Your task to perform on an android device: Open Google Chrome Image 0: 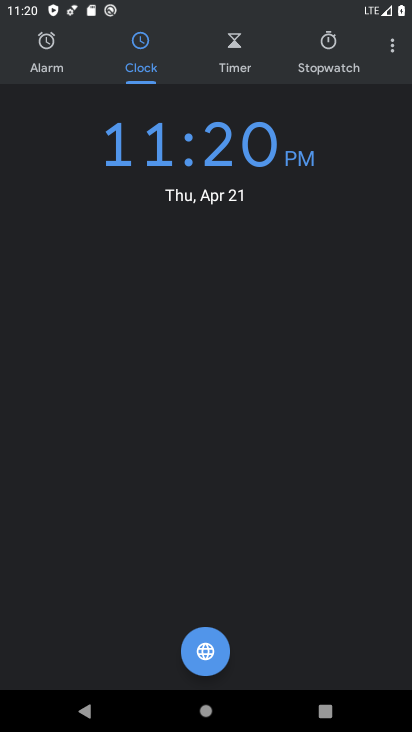
Step 0: press home button
Your task to perform on an android device: Open Google Chrome Image 1: 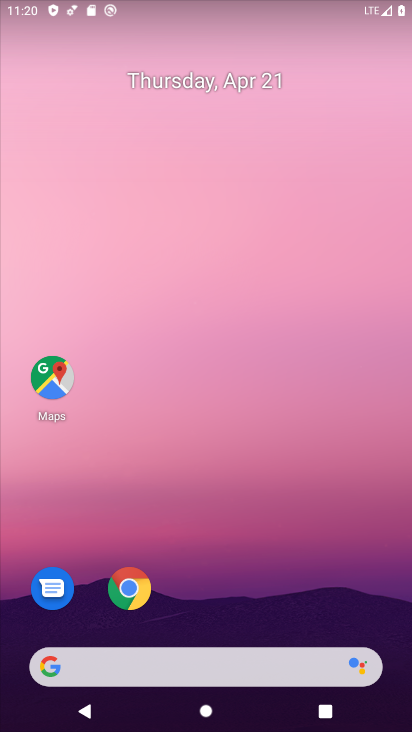
Step 1: drag from (291, 650) to (179, 163)
Your task to perform on an android device: Open Google Chrome Image 2: 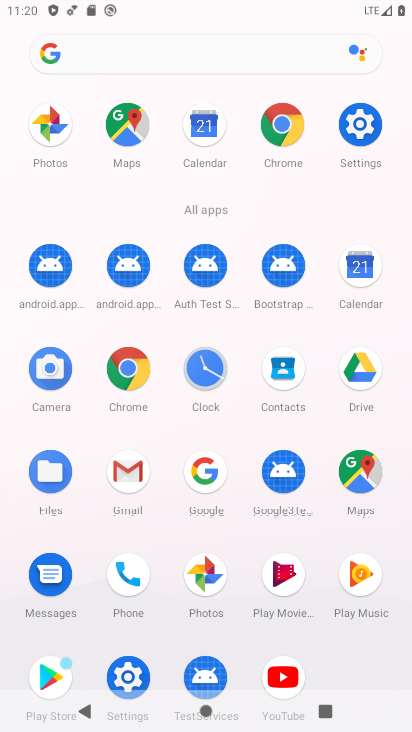
Step 2: click (274, 132)
Your task to perform on an android device: Open Google Chrome Image 3: 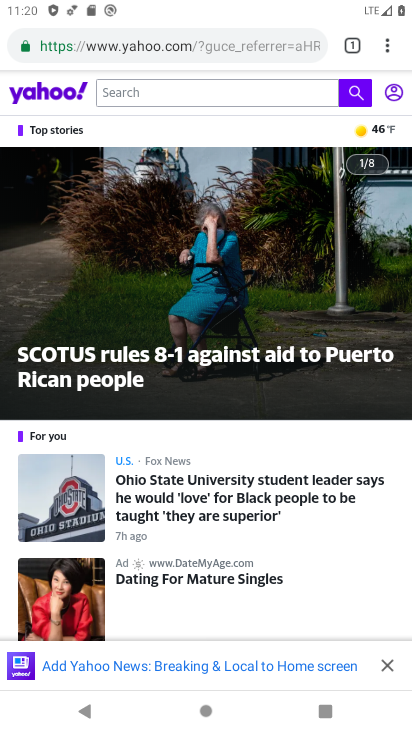
Step 3: click (387, 46)
Your task to perform on an android device: Open Google Chrome Image 4: 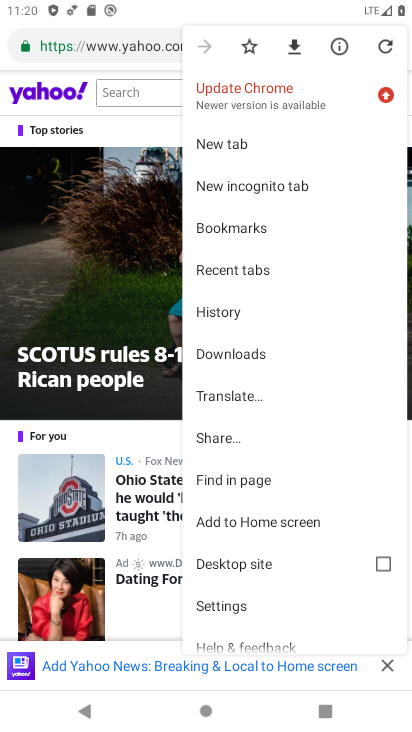
Step 4: click (237, 140)
Your task to perform on an android device: Open Google Chrome Image 5: 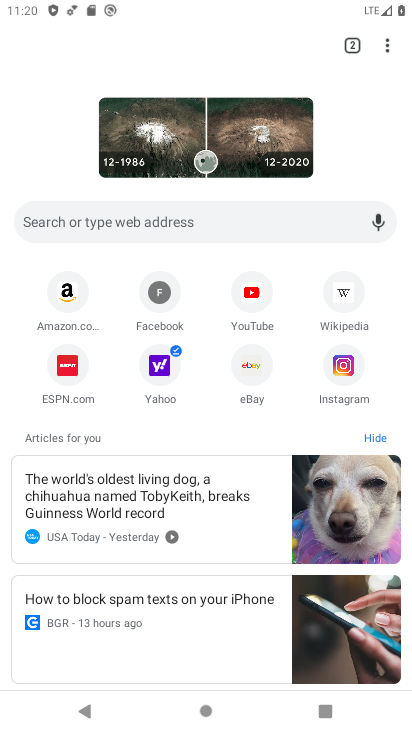
Step 5: task complete